Your task to perform on an android device: Go to privacy settings Image 0: 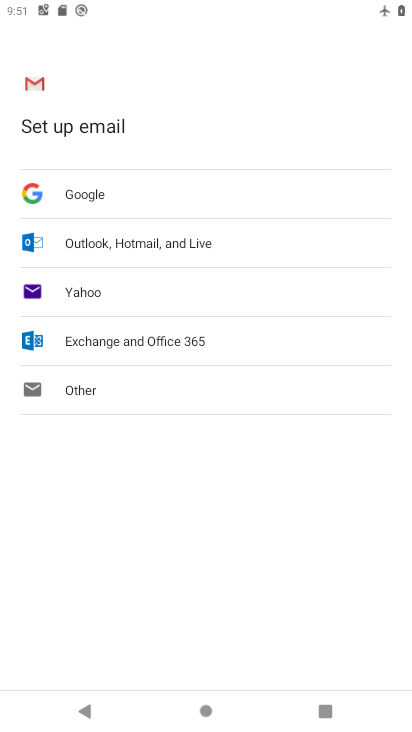
Step 0: press home button
Your task to perform on an android device: Go to privacy settings Image 1: 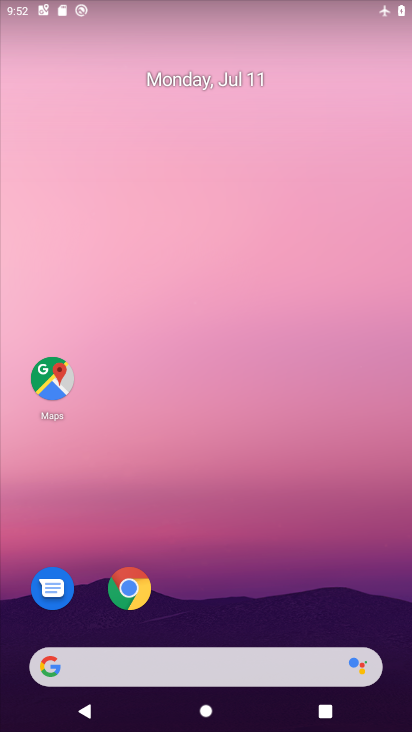
Step 1: drag from (262, 634) to (230, 59)
Your task to perform on an android device: Go to privacy settings Image 2: 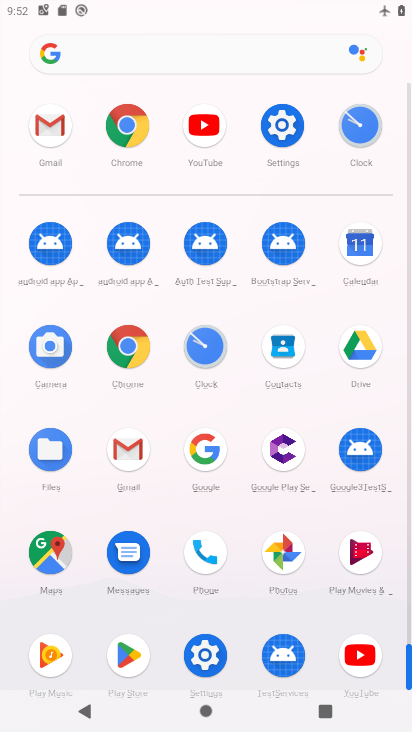
Step 2: click (289, 116)
Your task to perform on an android device: Go to privacy settings Image 3: 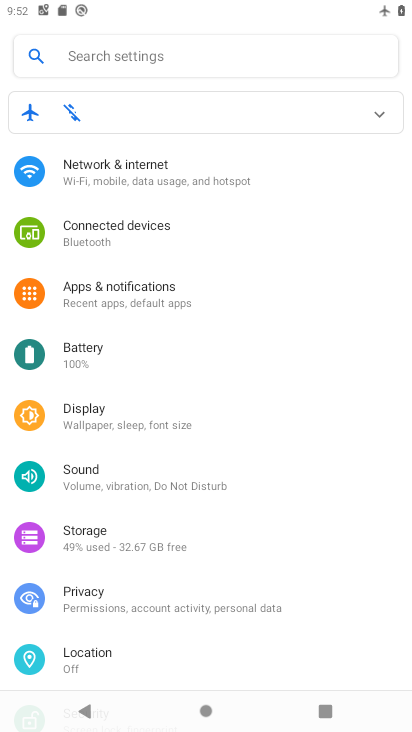
Step 3: click (144, 620)
Your task to perform on an android device: Go to privacy settings Image 4: 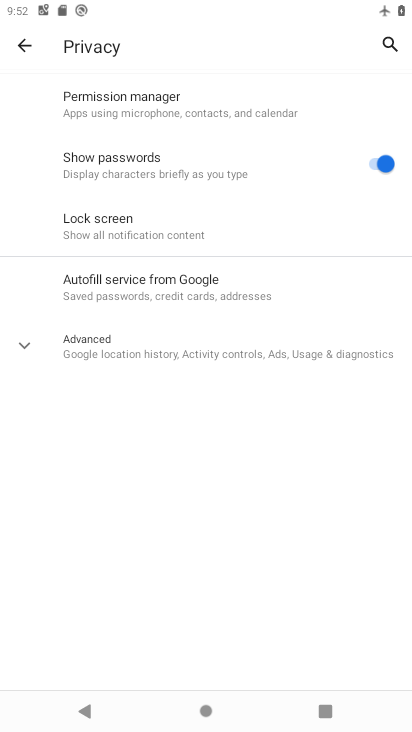
Step 4: task complete